Your task to perform on an android device: turn off notifications settings in the gmail app Image 0: 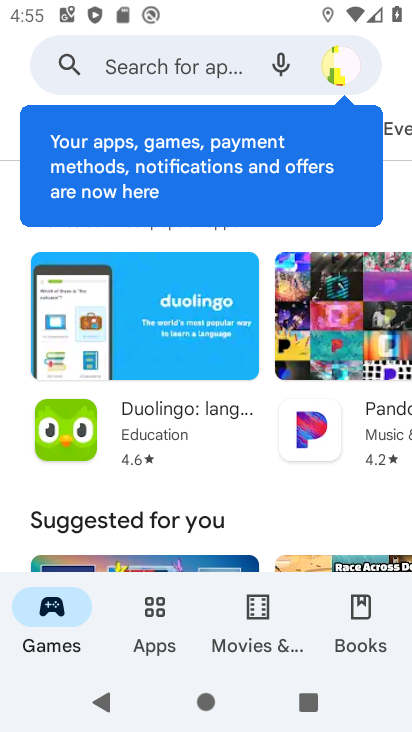
Step 0: press back button
Your task to perform on an android device: turn off notifications settings in the gmail app Image 1: 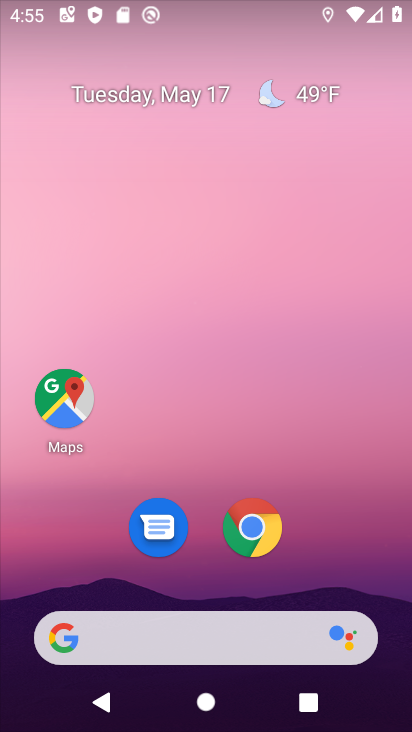
Step 1: drag from (331, 587) to (214, 6)
Your task to perform on an android device: turn off notifications settings in the gmail app Image 2: 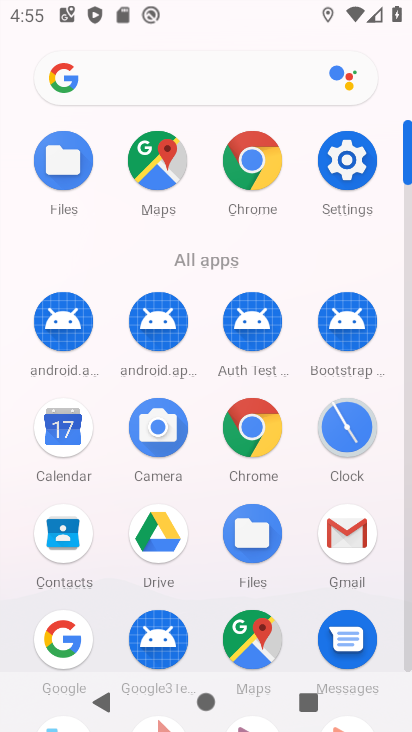
Step 2: drag from (7, 577) to (6, 301)
Your task to perform on an android device: turn off notifications settings in the gmail app Image 3: 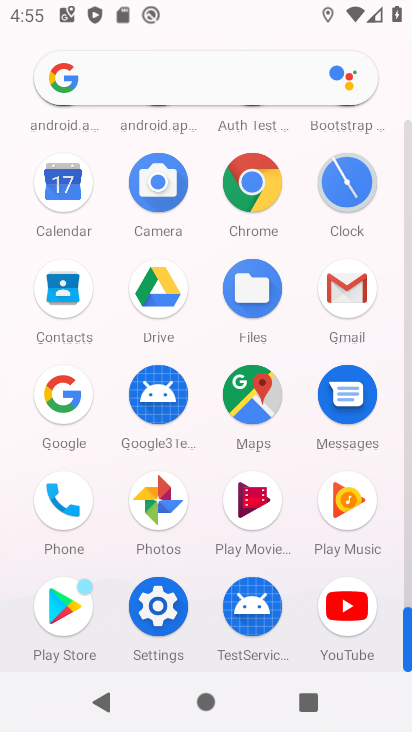
Step 3: click (346, 283)
Your task to perform on an android device: turn off notifications settings in the gmail app Image 4: 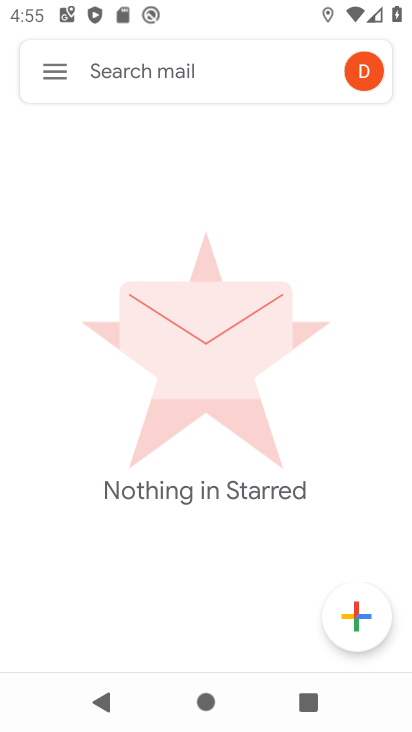
Step 4: click (61, 70)
Your task to perform on an android device: turn off notifications settings in the gmail app Image 5: 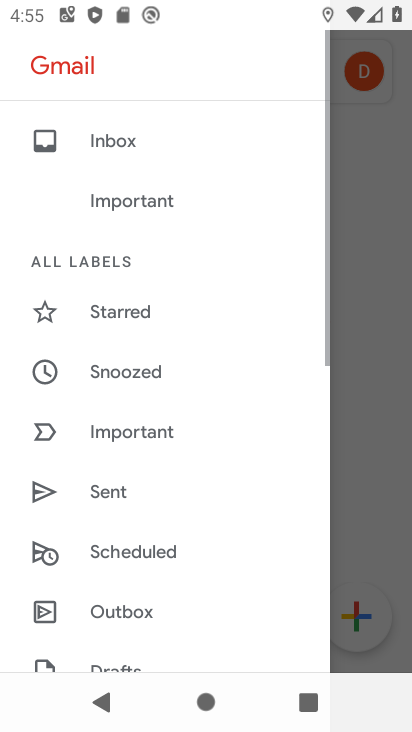
Step 5: drag from (215, 611) to (194, 134)
Your task to perform on an android device: turn off notifications settings in the gmail app Image 6: 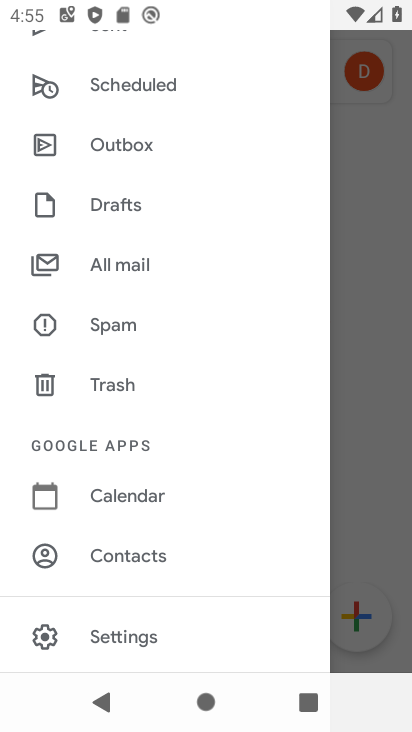
Step 6: click (132, 637)
Your task to perform on an android device: turn off notifications settings in the gmail app Image 7: 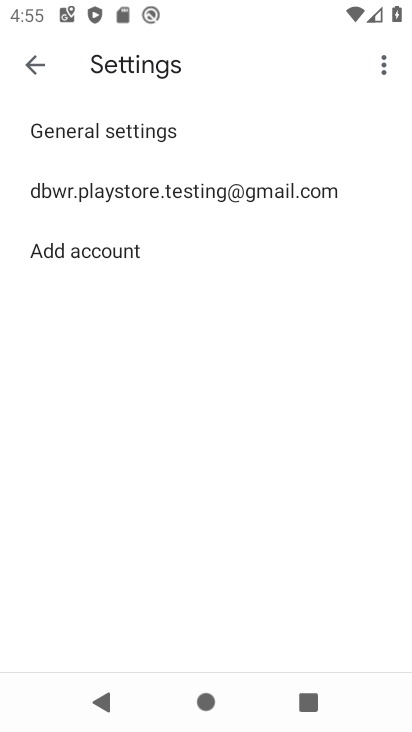
Step 7: click (142, 187)
Your task to perform on an android device: turn off notifications settings in the gmail app Image 8: 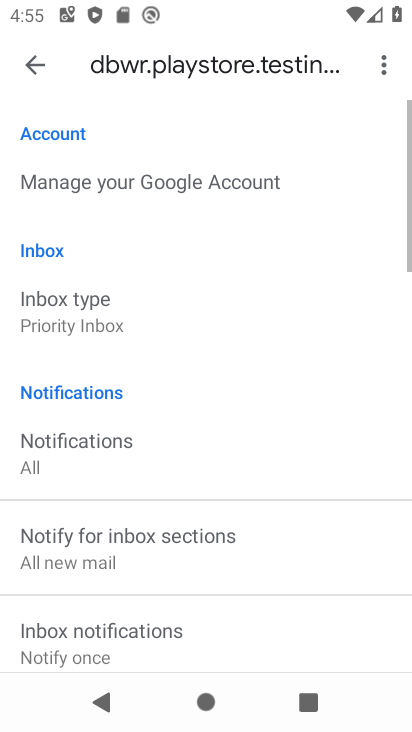
Step 8: drag from (244, 538) to (285, 142)
Your task to perform on an android device: turn off notifications settings in the gmail app Image 9: 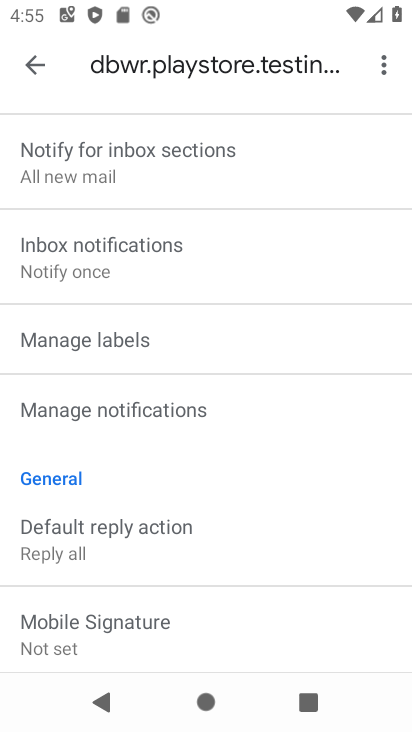
Step 9: drag from (273, 237) to (273, 628)
Your task to perform on an android device: turn off notifications settings in the gmail app Image 10: 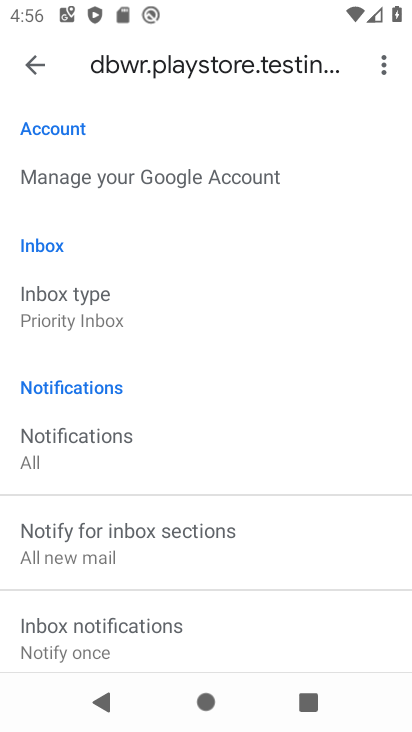
Step 10: drag from (187, 580) to (227, 208)
Your task to perform on an android device: turn off notifications settings in the gmail app Image 11: 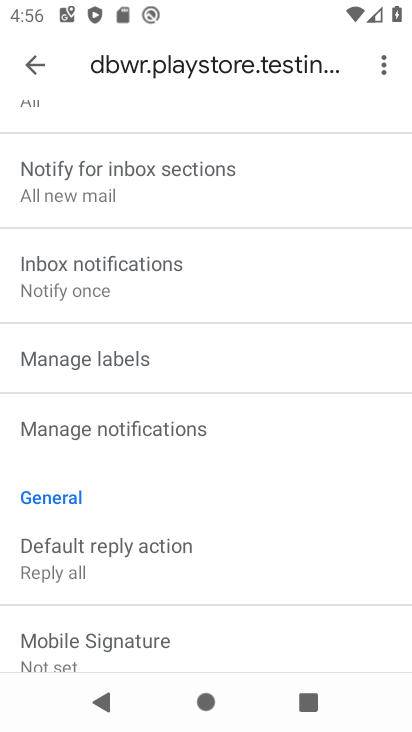
Step 11: click (167, 423)
Your task to perform on an android device: turn off notifications settings in the gmail app Image 12: 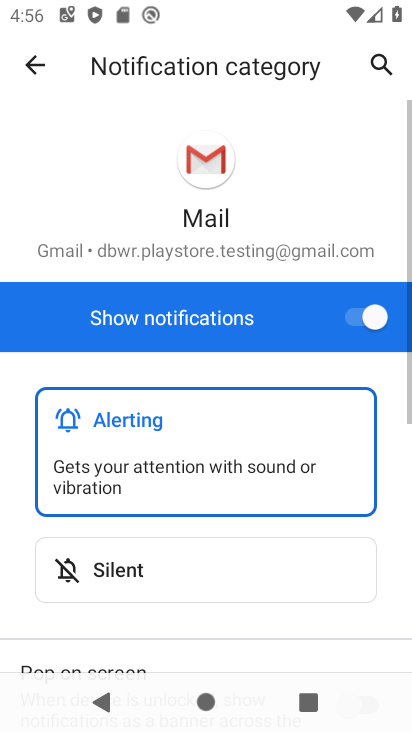
Step 12: drag from (242, 571) to (276, 283)
Your task to perform on an android device: turn off notifications settings in the gmail app Image 13: 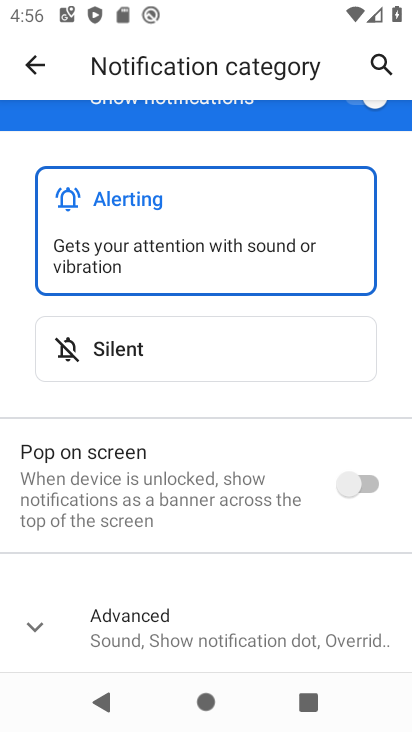
Step 13: drag from (353, 116) to (353, 336)
Your task to perform on an android device: turn off notifications settings in the gmail app Image 14: 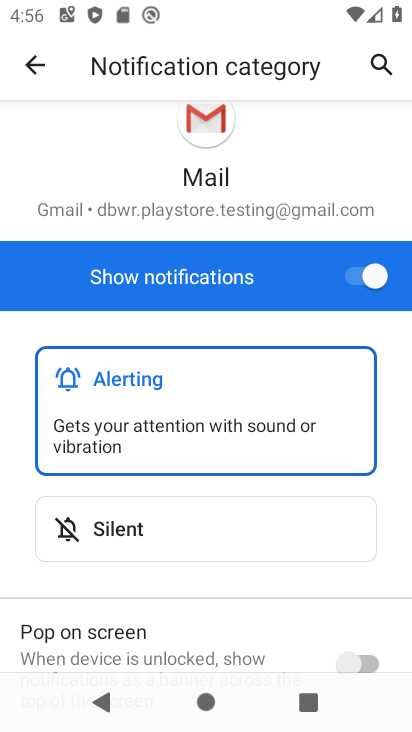
Step 14: click (359, 282)
Your task to perform on an android device: turn off notifications settings in the gmail app Image 15: 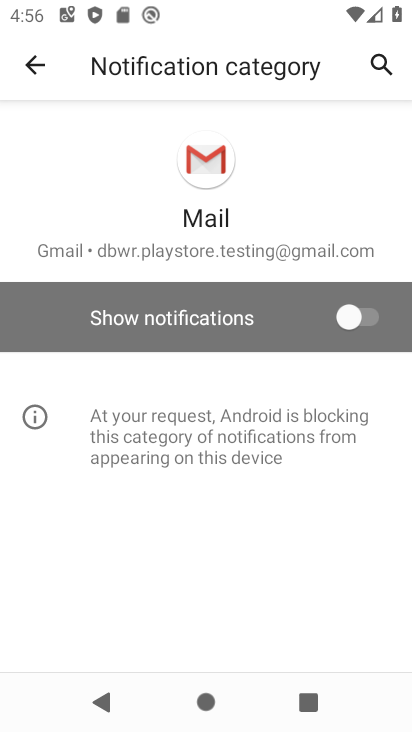
Step 15: task complete